Your task to perform on an android device: change the clock display to show seconds Image 0: 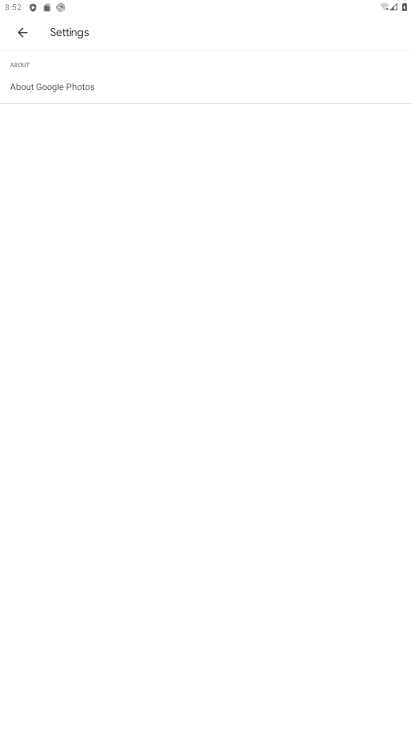
Step 0: press home button
Your task to perform on an android device: change the clock display to show seconds Image 1: 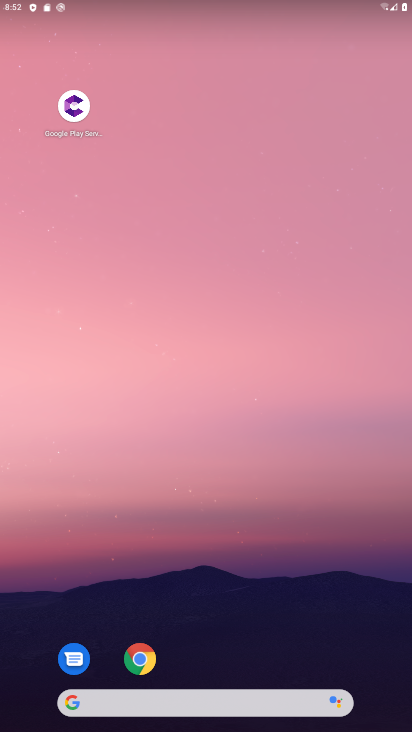
Step 1: drag from (245, 676) to (316, 116)
Your task to perform on an android device: change the clock display to show seconds Image 2: 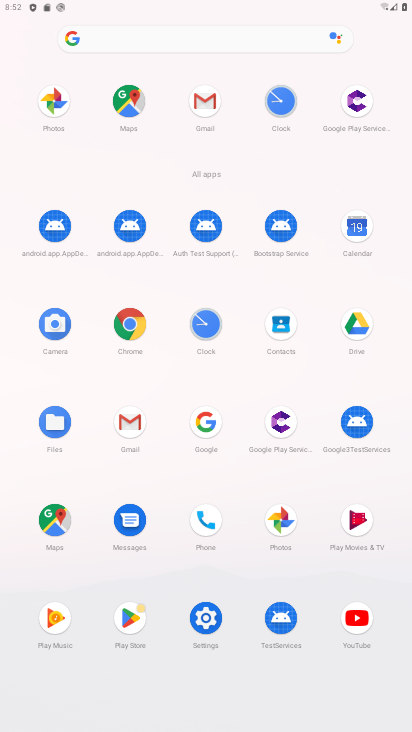
Step 2: click (280, 105)
Your task to perform on an android device: change the clock display to show seconds Image 3: 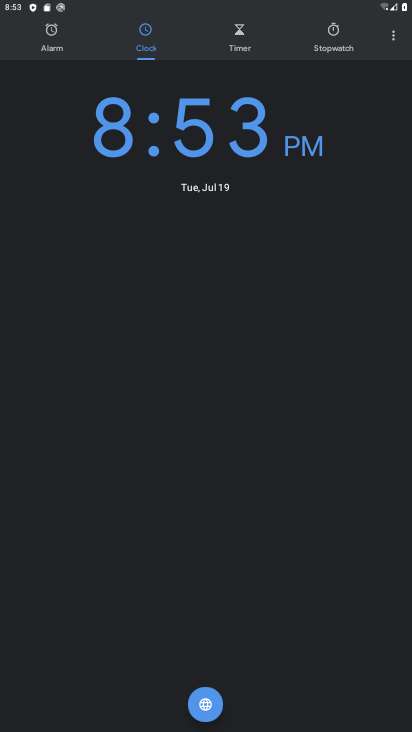
Step 3: click (386, 33)
Your task to perform on an android device: change the clock display to show seconds Image 4: 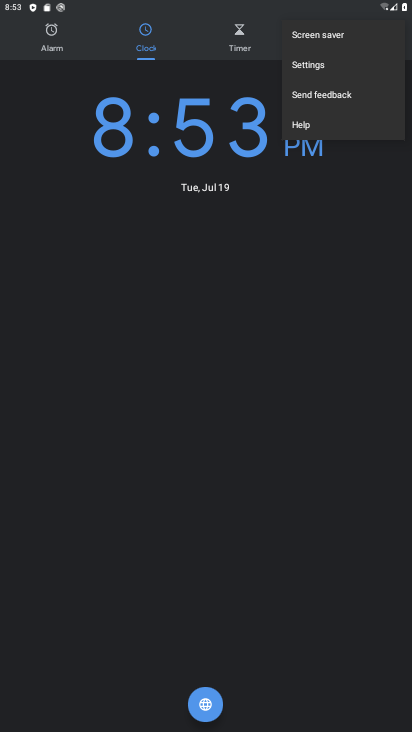
Step 4: click (346, 67)
Your task to perform on an android device: change the clock display to show seconds Image 5: 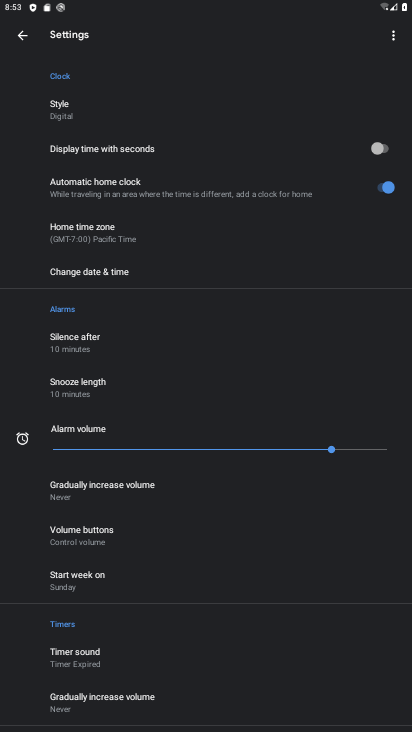
Step 5: click (373, 144)
Your task to perform on an android device: change the clock display to show seconds Image 6: 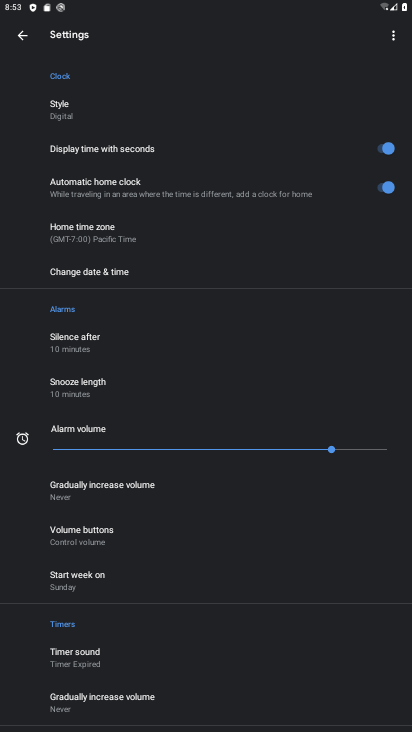
Step 6: task complete